Your task to perform on an android device: Go to eBay Image 0: 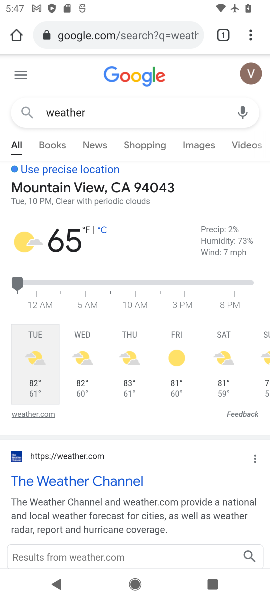
Step 0: click (140, 26)
Your task to perform on an android device: Go to eBay Image 1: 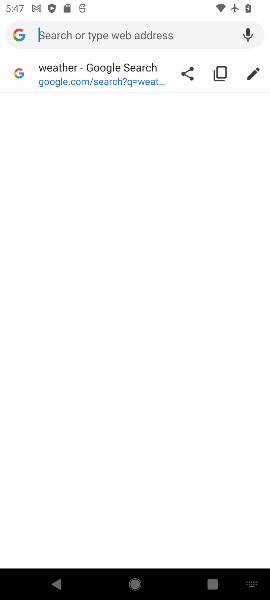
Step 1: type "eBay"
Your task to perform on an android device: Go to eBay Image 2: 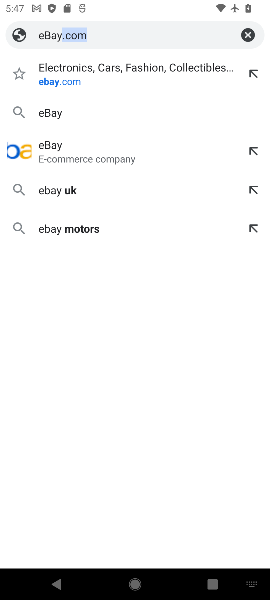
Step 2: click (65, 80)
Your task to perform on an android device: Go to eBay Image 3: 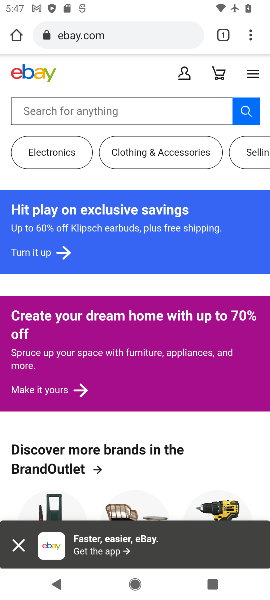
Step 3: task complete